Your task to perform on an android device: Search for Mexican restaurants on Maps Image 0: 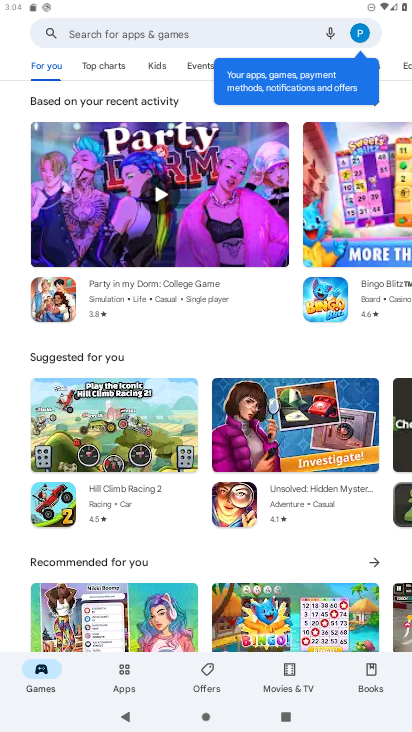
Step 0: press home button
Your task to perform on an android device: Search for Mexican restaurants on Maps Image 1: 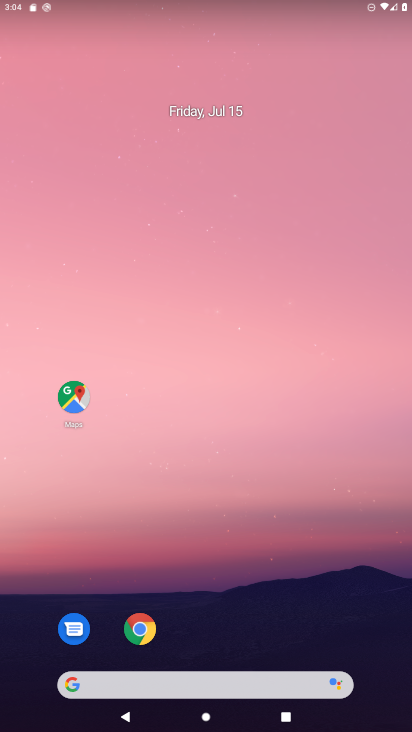
Step 1: drag from (289, 537) to (264, 12)
Your task to perform on an android device: Search for Mexican restaurants on Maps Image 2: 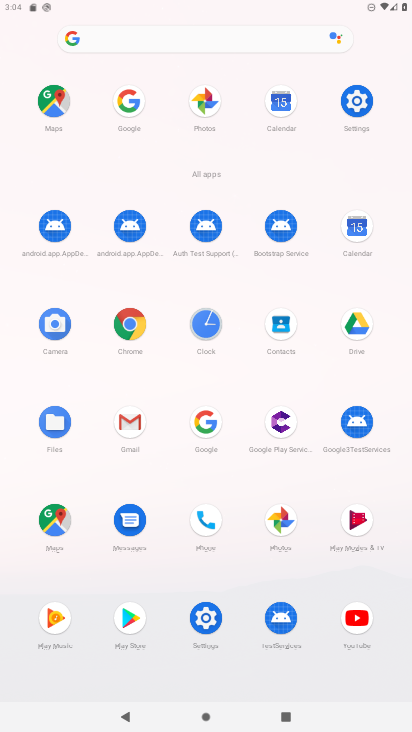
Step 2: click (54, 90)
Your task to perform on an android device: Search for Mexican restaurants on Maps Image 3: 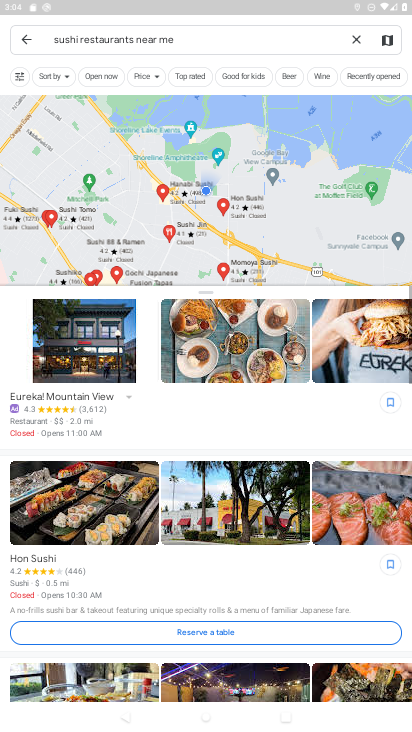
Step 3: click (31, 41)
Your task to perform on an android device: Search for Mexican restaurants on Maps Image 4: 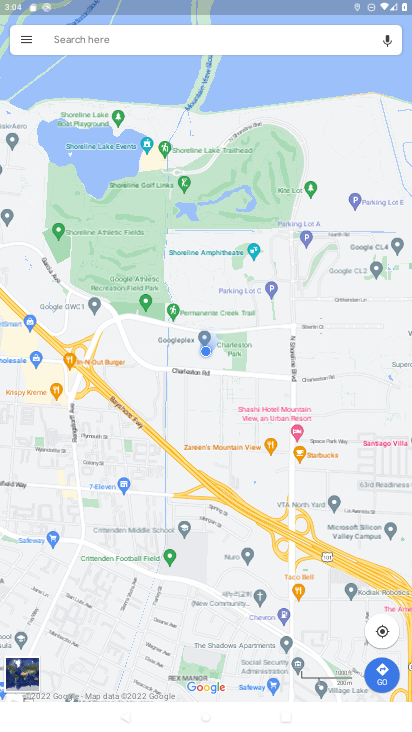
Step 4: click (100, 51)
Your task to perform on an android device: Search for Mexican restaurants on Maps Image 5: 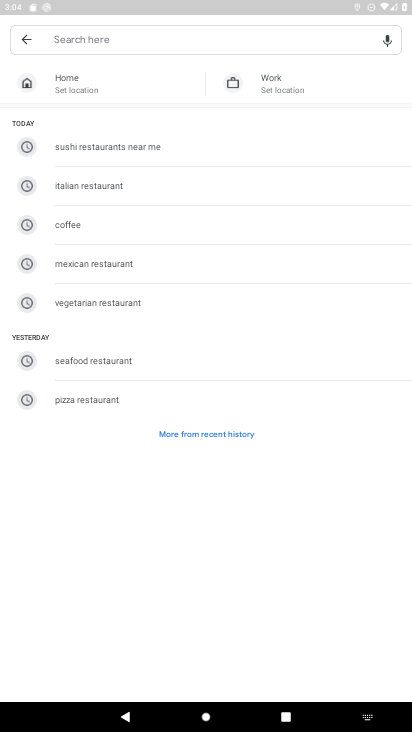
Step 5: click (97, 273)
Your task to perform on an android device: Search for Mexican restaurants on Maps Image 6: 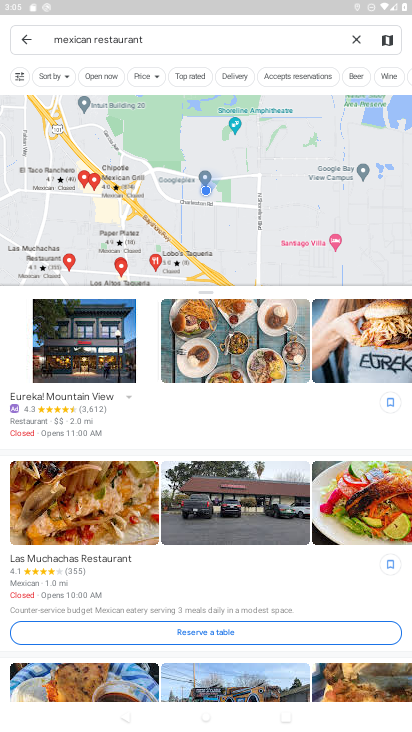
Step 6: task complete